Your task to perform on an android device: Open settings on Google Maps Image 0: 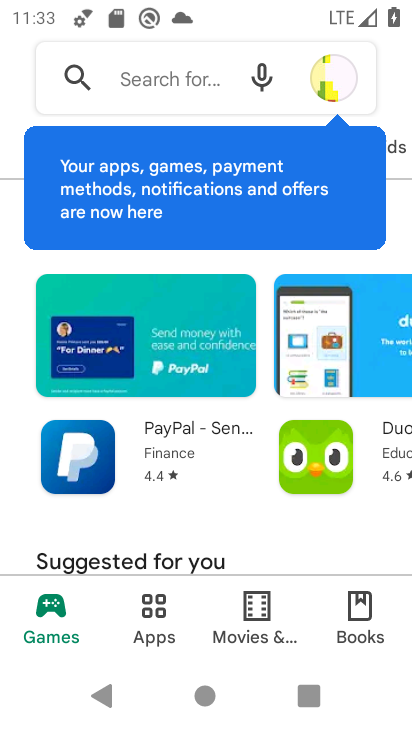
Step 0: press home button
Your task to perform on an android device: Open settings on Google Maps Image 1: 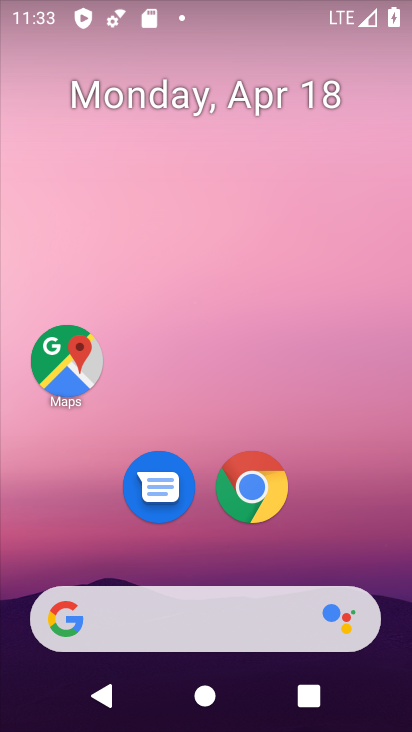
Step 1: click (58, 363)
Your task to perform on an android device: Open settings on Google Maps Image 2: 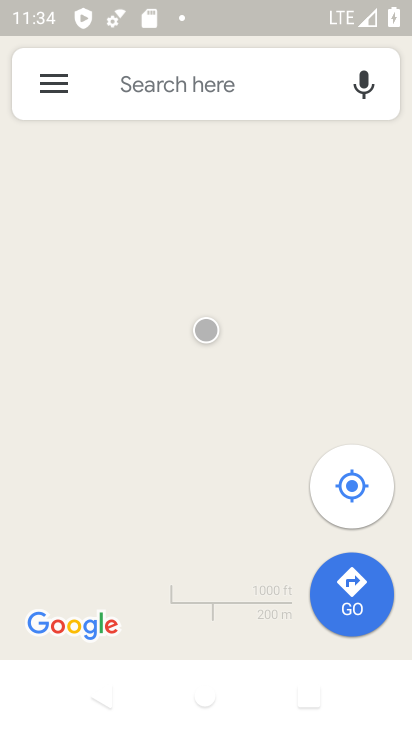
Step 2: click (49, 85)
Your task to perform on an android device: Open settings on Google Maps Image 3: 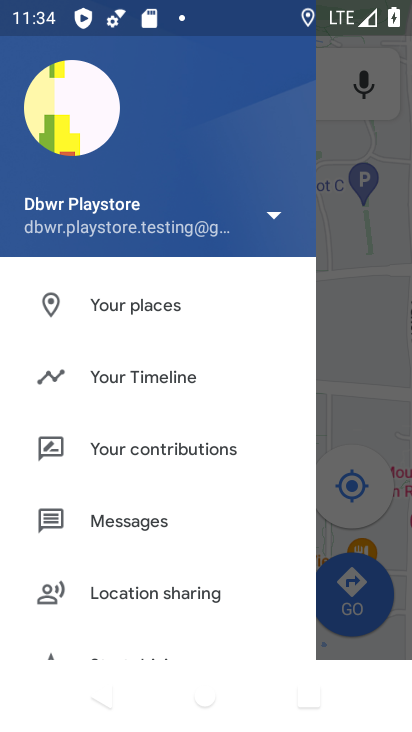
Step 3: drag from (171, 571) to (114, 205)
Your task to perform on an android device: Open settings on Google Maps Image 4: 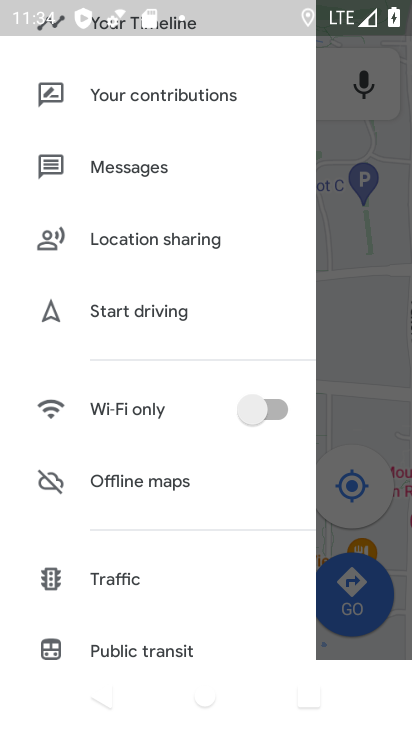
Step 4: drag from (144, 609) to (88, 221)
Your task to perform on an android device: Open settings on Google Maps Image 5: 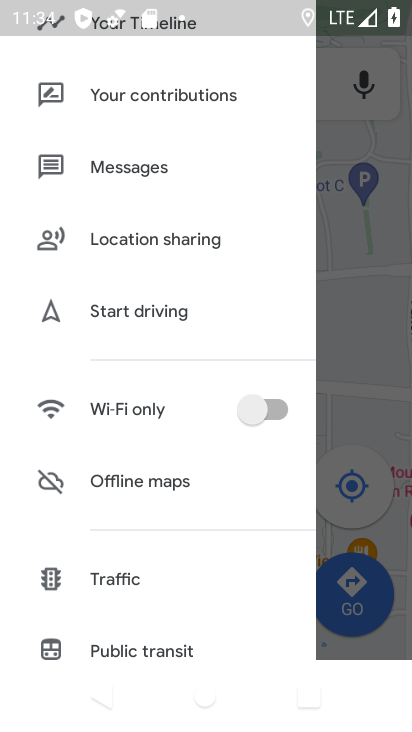
Step 5: drag from (166, 585) to (109, 162)
Your task to perform on an android device: Open settings on Google Maps Image 6: 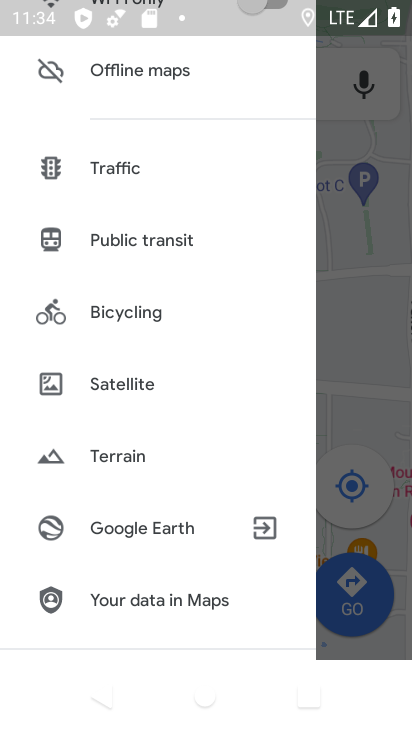
Step 6: drag from (145, 569) to (107, 135)
Your task to perform on an android device: Open settings on Google Maps Image 7: 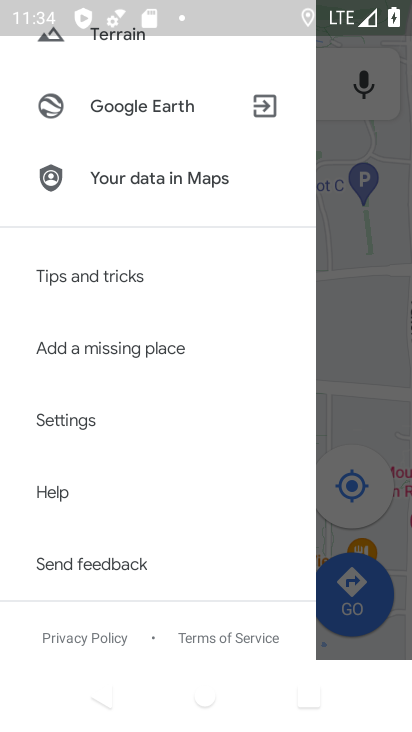
Step 7: click (71, 419)
Your task to perform on an android device: Open settings on Google Maps Image 8: 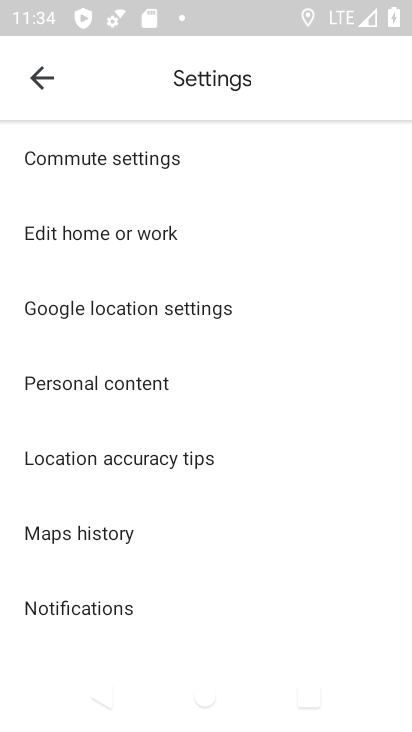
Step 8: task complete